Your task to perform on an android device: Open display settings Image 0: 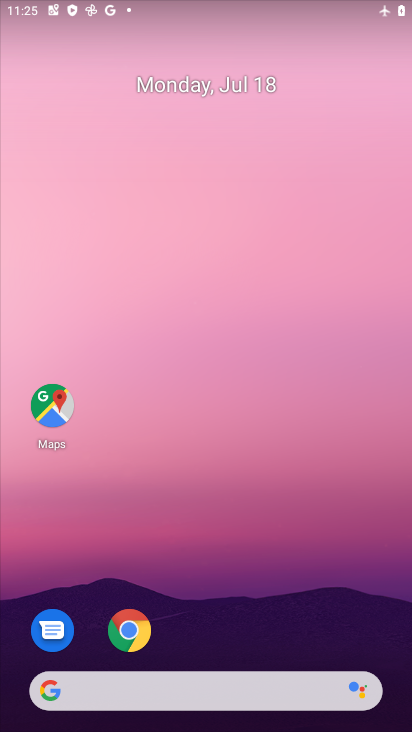
Step 0: drag from (365, 623) to (260, 47)
Your task to perform on an android device: Open display settings Image 1: 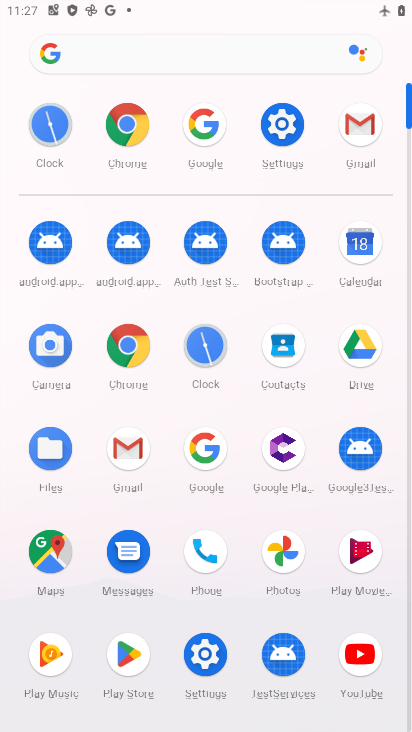
Step 1: click (189, 651)
Your task to perform on an android device: Open display settings Image 2: 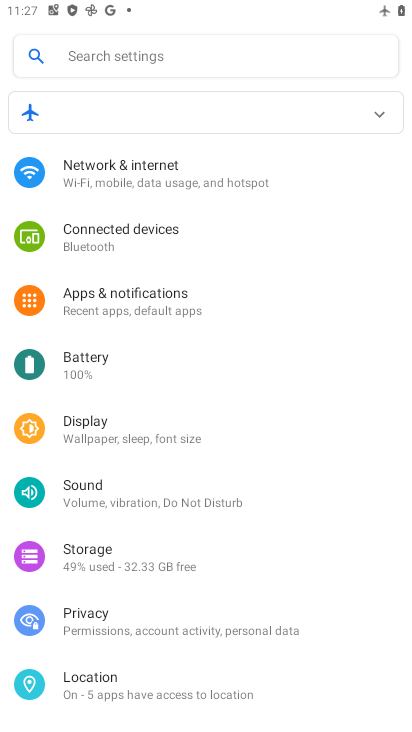
Step 2: click (108, 425)
Your task to perform on an android device: Open display settings Image 3: 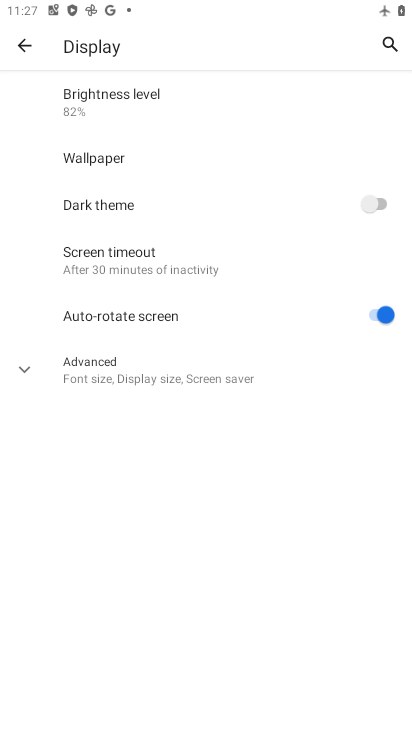
Step 3: task complete